Your task to perform on an android device: turn on the 12-hour format for clock Image 0: 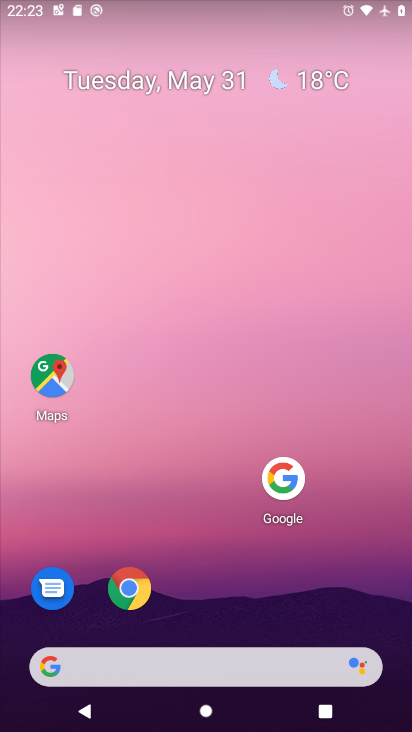
Step 0: drag from (139, 677) to (277, 88)
Your task to perform on an android device: turn on the 12-hour format for clock Image 1: 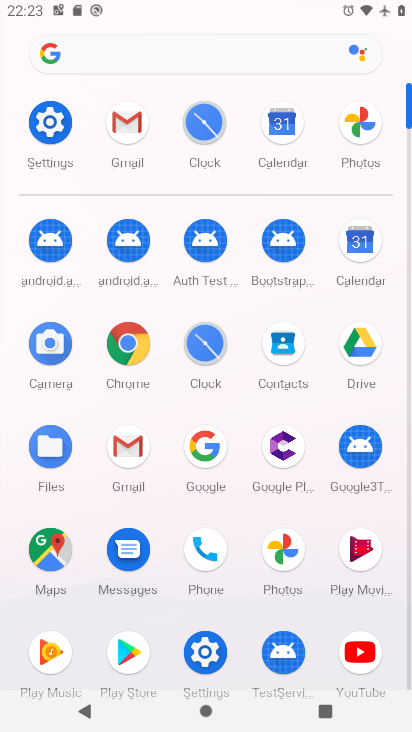
Step 1: click (195, 122)
Your task to perform on an android device: turn on the 12-hour format for clock Image 2: 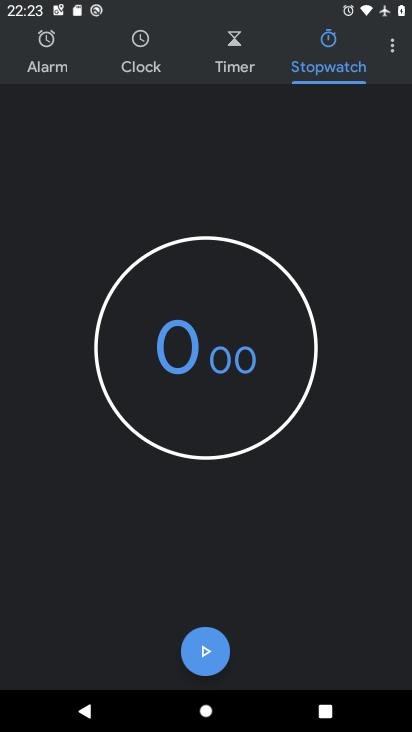
Step 2: click (391, 53)
Your task to perform on an android device: turn on the 12-hour format for clock Image 3: 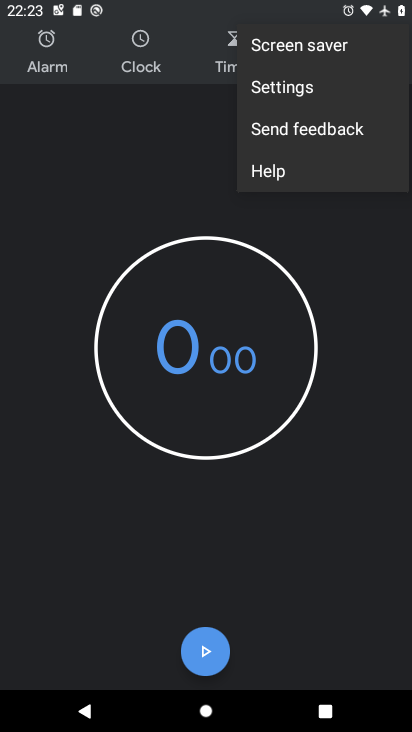
Step 3: click (301, 88)
Your task to perform on an android device: turn on the 12-hour format for clock Image 4: 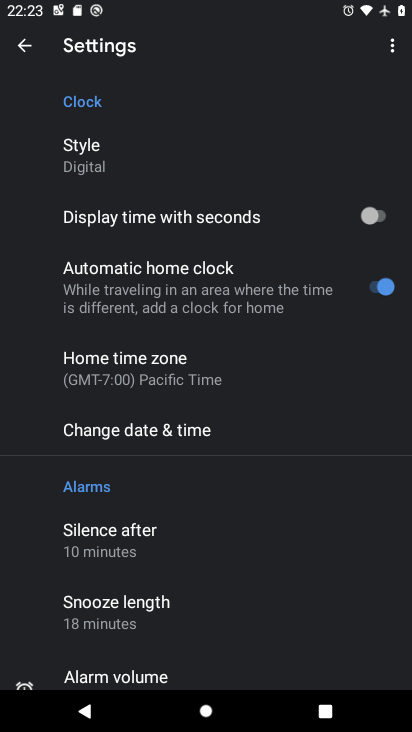
Step 4: click (183, 436)
Your task to perform on an android device: turn on the 12-hour format for clock Image 5: 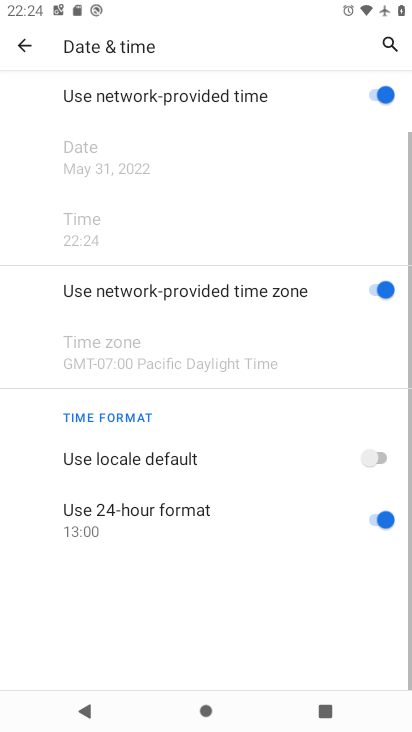
Step 5: click (383, 455)
Your task to perform on an android device: turn on the 12-hour format for clock Image 6: 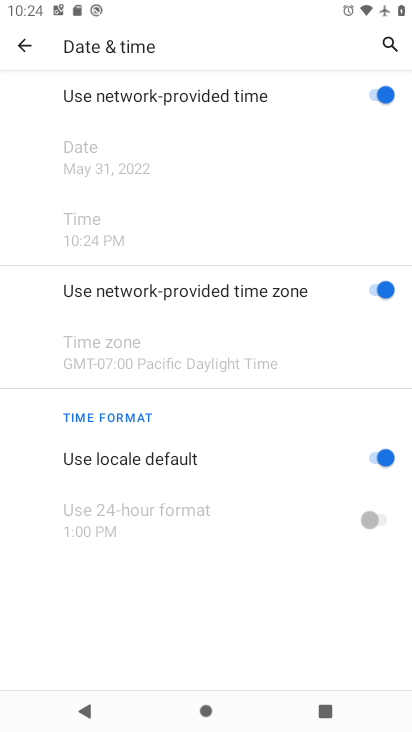
Step 6: task complete